Your task to perform on an android device: delete browsing data in the chrome app Image 0: 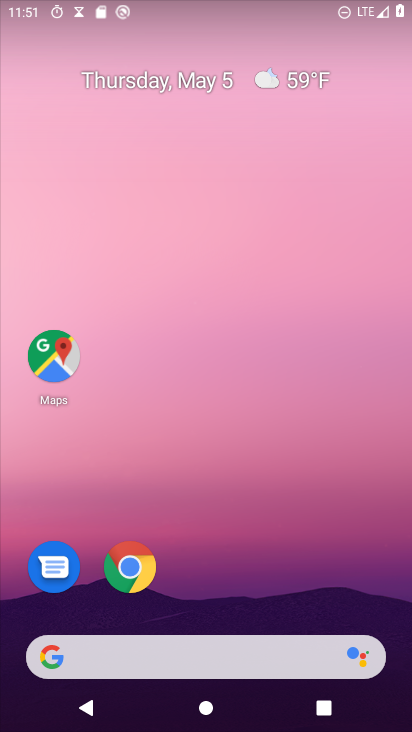
Step 0: click (129, 572)
Your task to perform on an android device: delete browsing data in the chrome app Image 1: 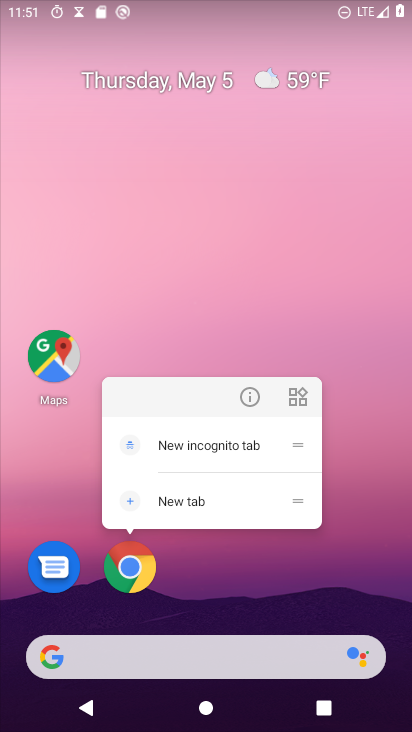
Step 1: click (129, 572)
Your task to perform on an android device: delete browsing data in the chrome app Image 2: 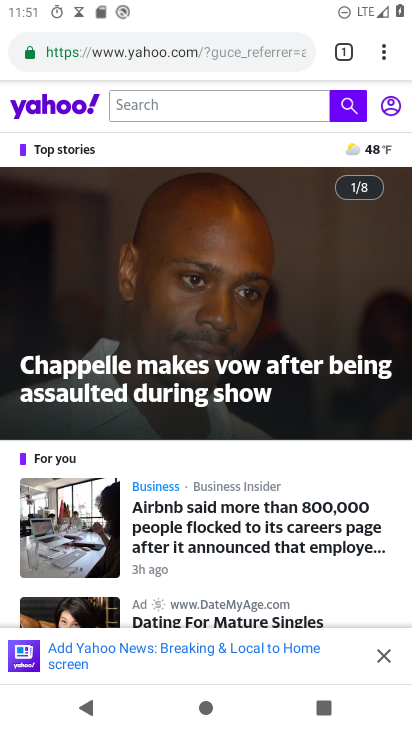
Step 2: drag from (385, 48) to (207, 603)
Your task to perform on an android device: delete browsing data in the chrome app Image 3: 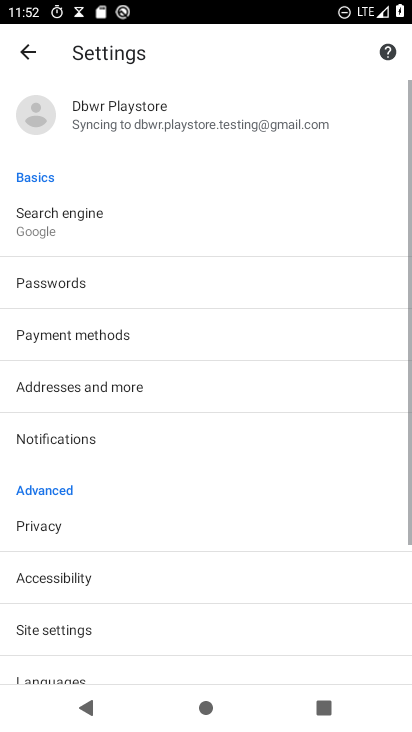
Step 3: click (57, 536)
Your task to perform on an android device: delete browsing data in the chrome app Image 4: 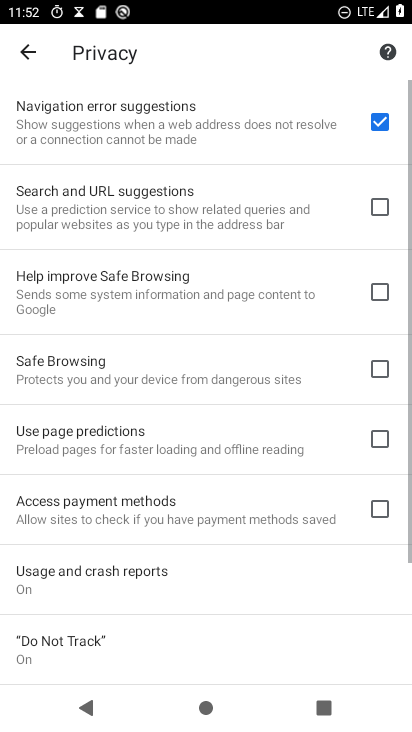
Step 4: drag from (208, 653) to (194, 401)
Your task to perform on an android device: delete browsing data in the chrome app Image 5: 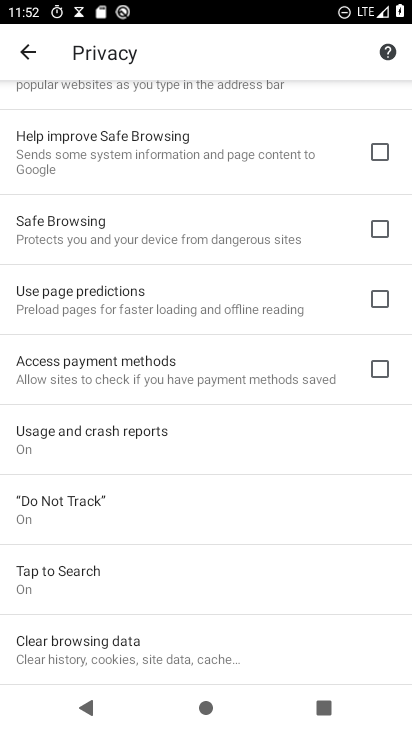
Step 5: click (51, 649)
Your task to perform on an android device: delete browsing data in the chrome app Image 6: 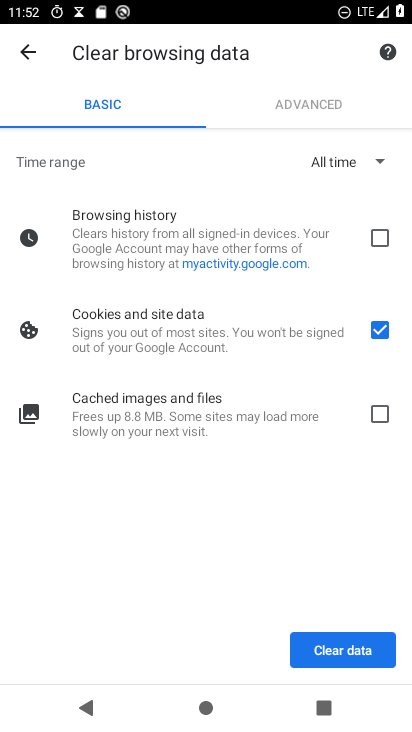
Step 6: click (378, 233)
Your task to perform on an android device: delete browsing data in the chrome app Image 7: 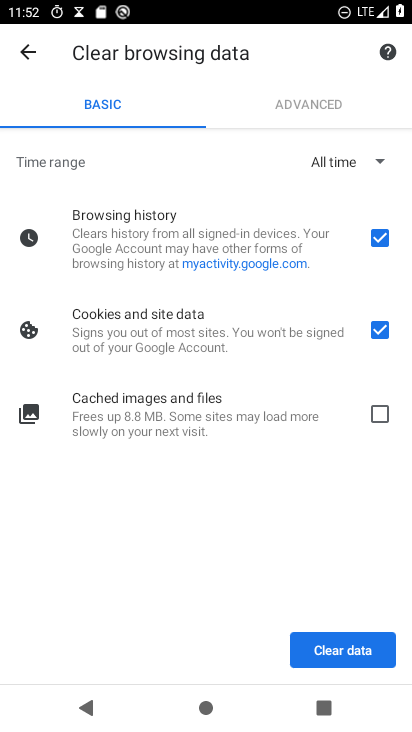
Step 7: click (377, 319)
Your task to perform on an android device: delete browsing data in the chrome app Image 8: 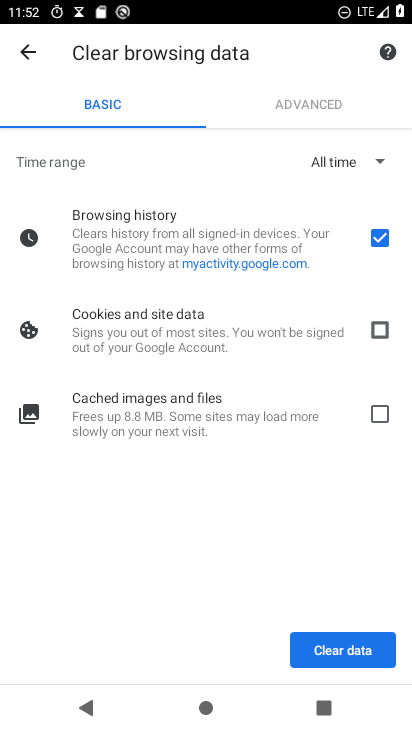
Step 8: click (382, 406)
Your task to perform on an android device: delete browsing data in the chrome app Image 9: 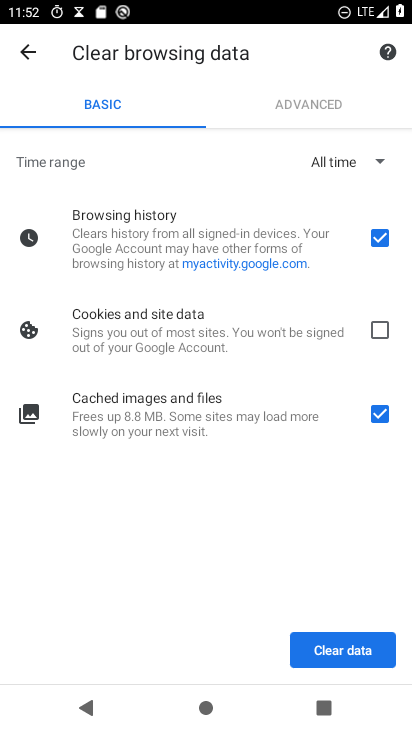
Step 9: click (382, 406)
Your task to perform on an android device: delete browsing data in the chrome app Image 10: 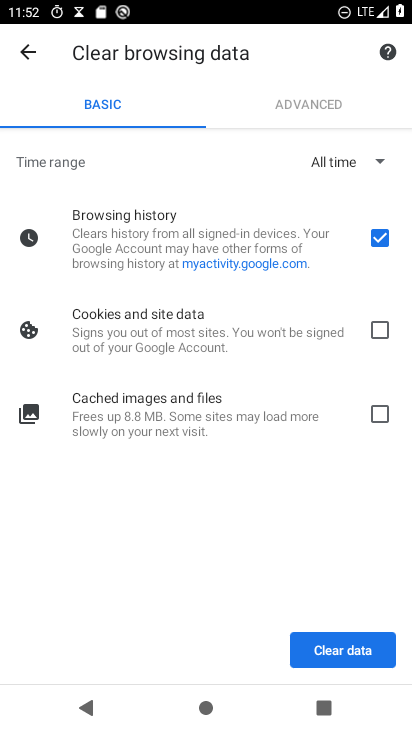
Step 10: click (337, 645)
Your task to perform on an android device: delete browsing data in the chrome app Image 11: 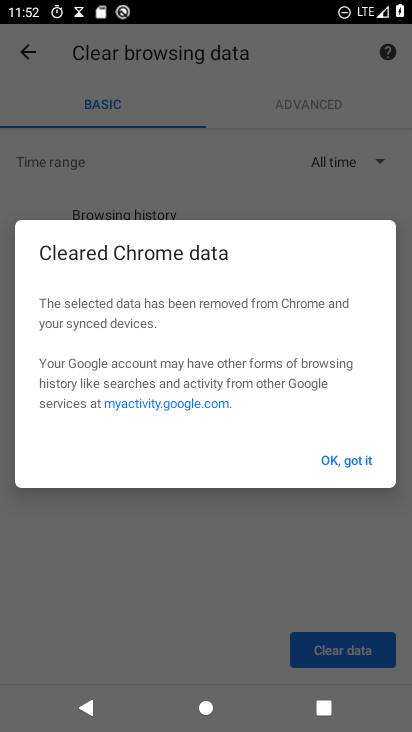
Step 11: click (346, 456)
Your task to perform on an android device: delete browsing data in the chrome app Image 12: 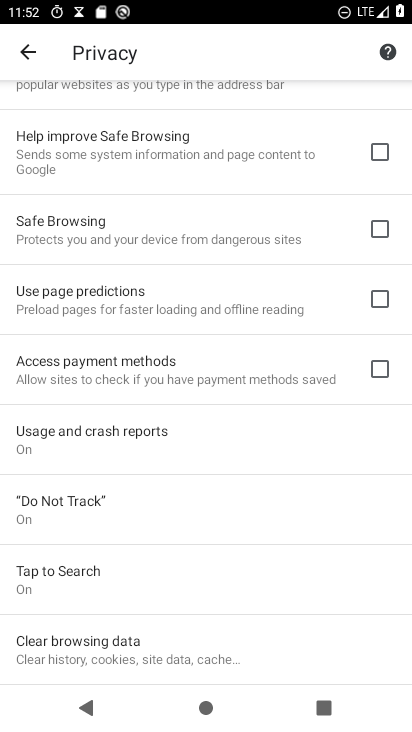
Step 12: task complete